Your task to perform on an android device: turn on notifications settings in the gmail app Image 0: 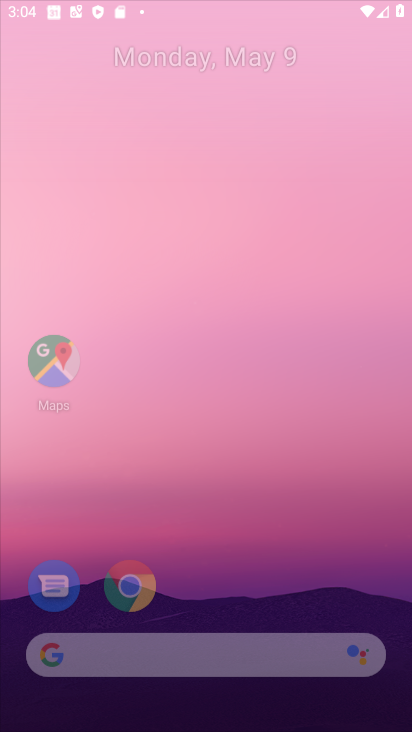
Step 0: click (171, 202)
Your task to perform on an android device: turn on notifications settings in the gmail app Image 1: 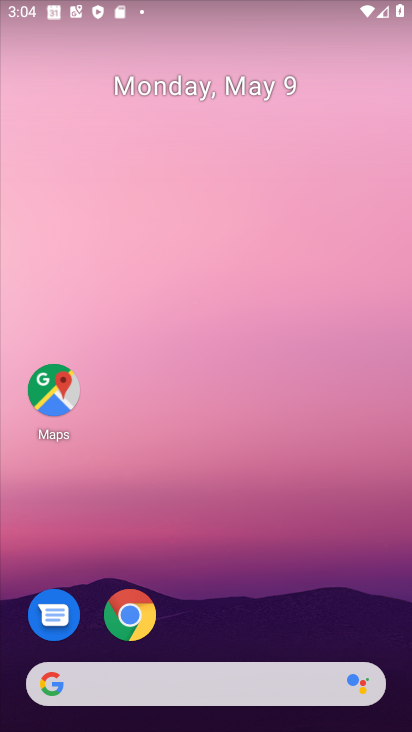
Step 1: drag from (256, 628) to (208, 268)
Your task to perform on an android device: turn on notifications settings in the gmail app Image 2: 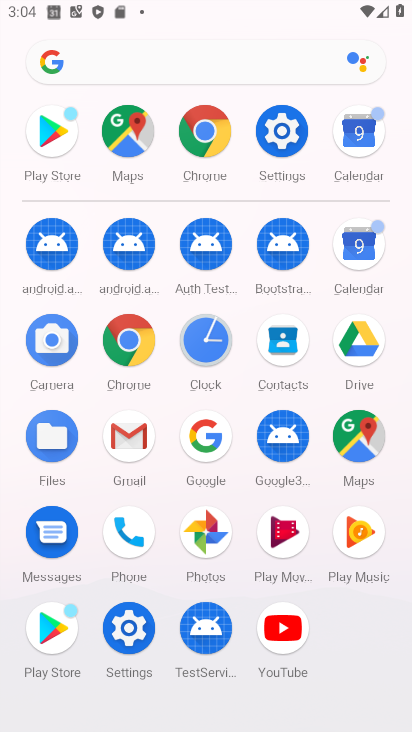
Step 2: click (128, 430)
Your task to perform on an android device: turn on notifications settings in the gmail app Image 3: 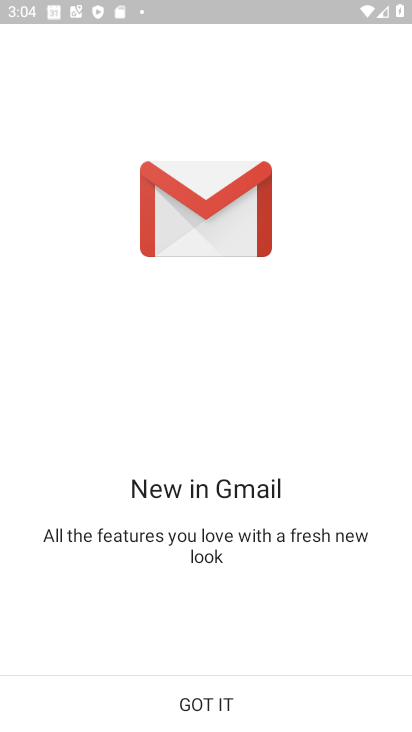
Step 3: click (217, 701)
Your task to perform on an android device: turn on notifications settings in the gmail app Image 4: 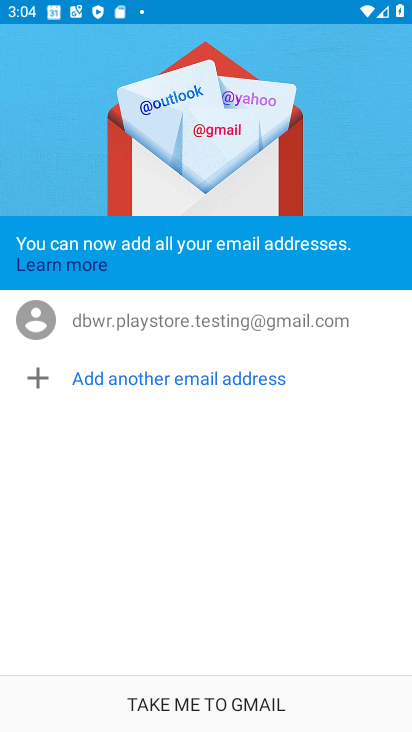
Step 4: click (217, 701)
Your task to perform on an android device: turn on notifications settings in the gmail app Image 5: 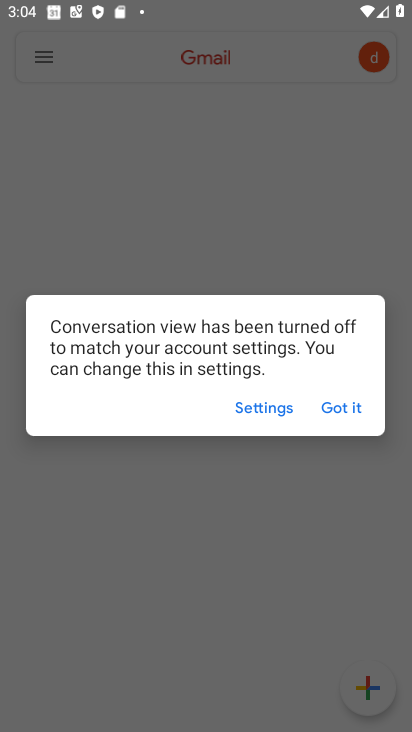
Step 5: click (343, 399)
Your task to perform on an android device: turn on notifications settings in the gmail app Image 6: 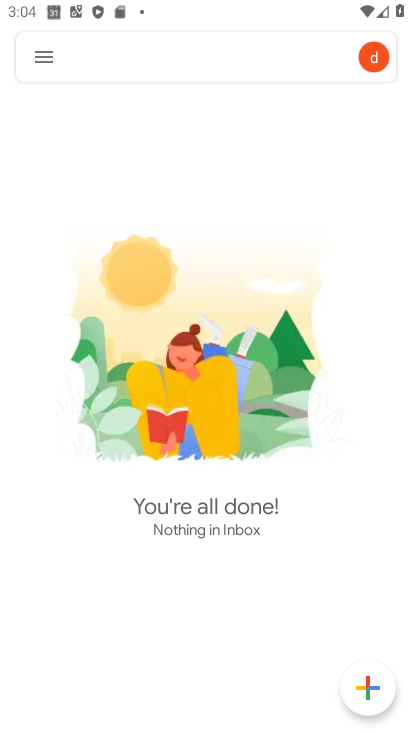
Step 6: click (39, 56)
Your task to perform on an android device: turn on notifications settings in the gmail app Image 7: 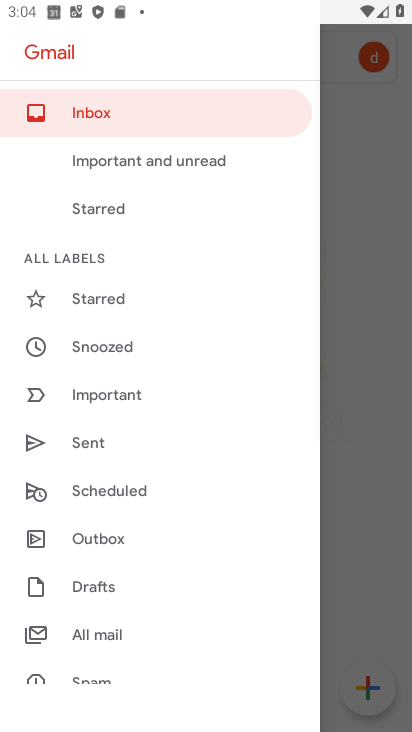
Step 7: drag from (132, 598) to (192, 237)
Your task to perform on an android device: turn on notifications settings in the gmail app Image 8: 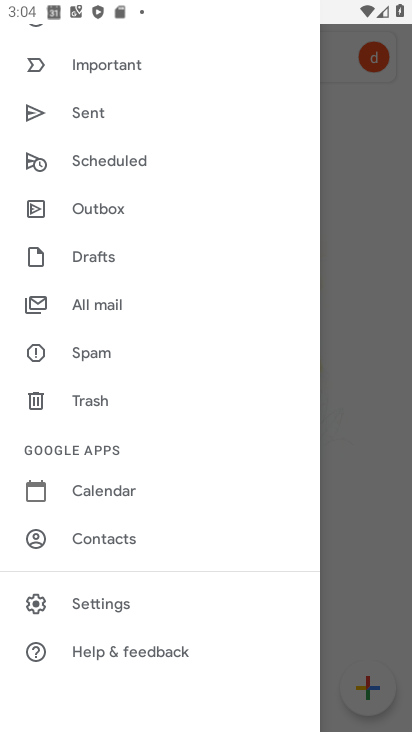
Step 8: click (93, 604)
Your task to perform on an android device: turn on notifications settings in the gmail app Image 9: 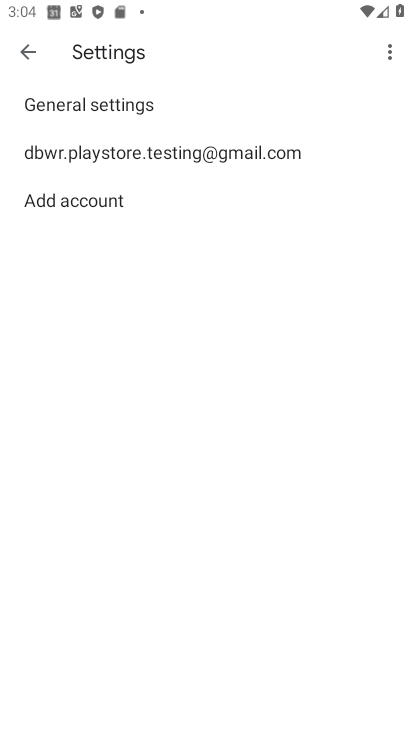
Step 9: click (115, 148)
Your task to perform on an android device: turn on notifications settings in the gmail app Image 10: 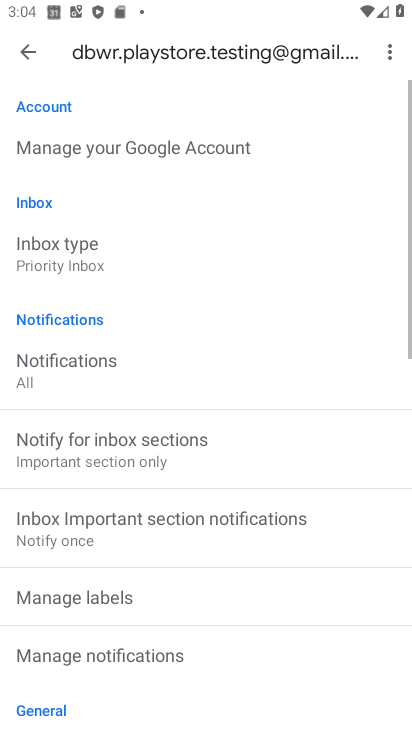
Step 10: click (105, 366)
Your task to perform on an android device: turn on notifications settings in the gmail app Image 11: 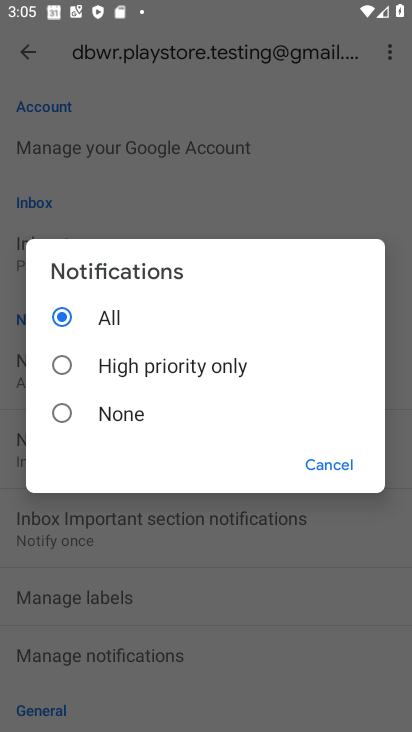
Step 11: task complete